Your task to perform on an android device: Go to internet settings Image 0: 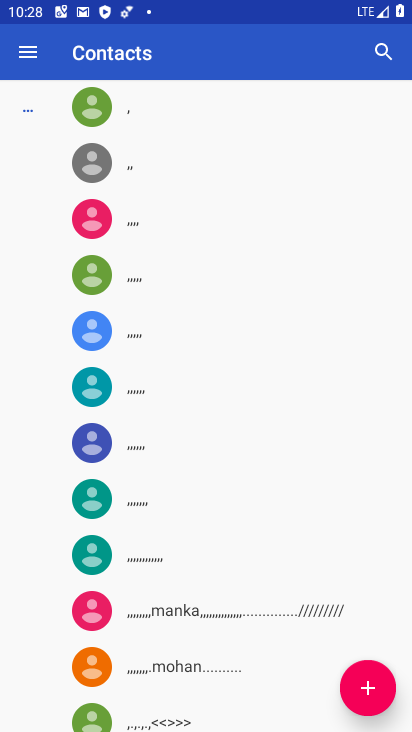
Step 0: press home button
Your task to perform on an android device: Go to internet settings Image 1: 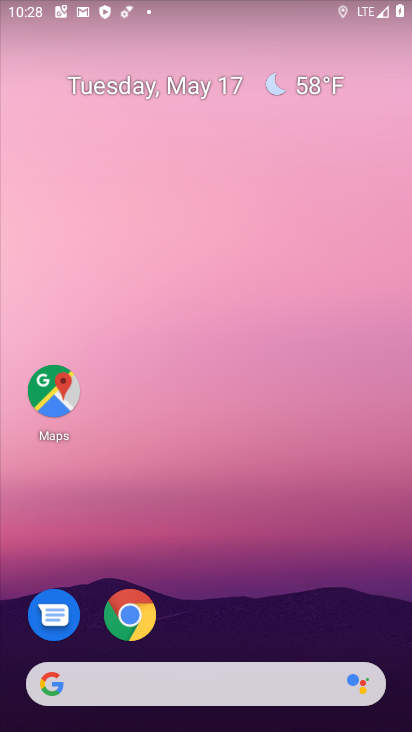
Step 1: drag from (237, 604) to (253, 177)
Your task to perform on an android device: Go to internet settings Image 2: 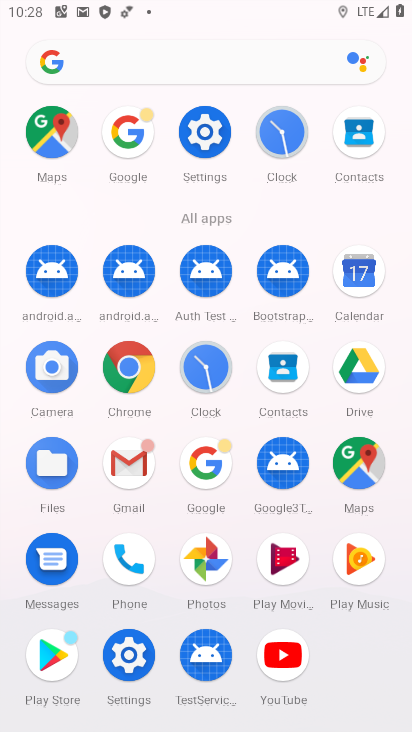
Step 2: click (188, 148)
Your task to perform on an android device: Go to internet settings Image 3: 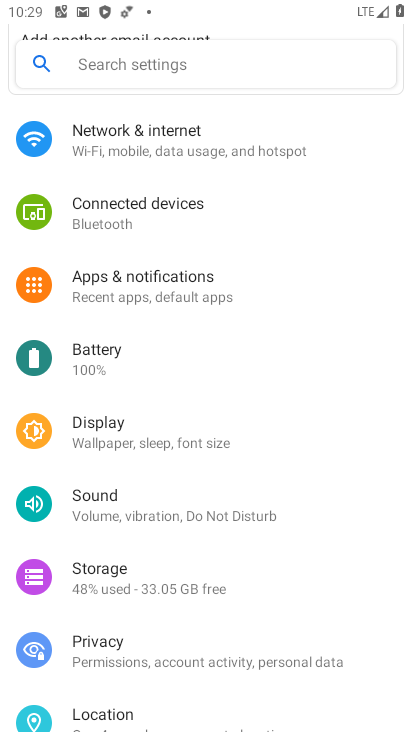
Step 3: click (170, 147)
Your task to perform on an android device: Go to internet settings Image 4: 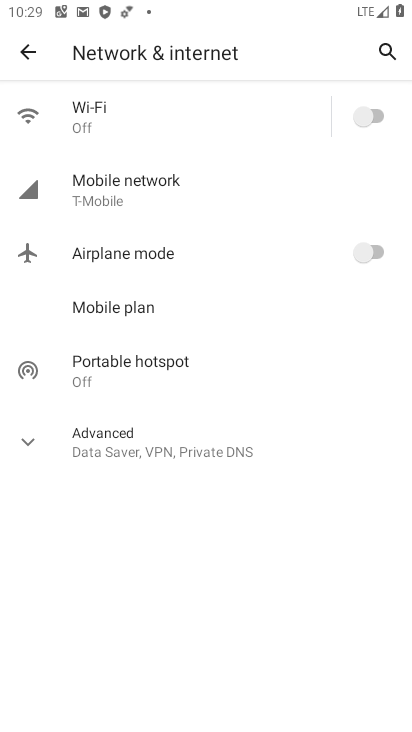
Step 4: click (172, 194)
Your task to perform on an android device: Go to internet settings Image 5: 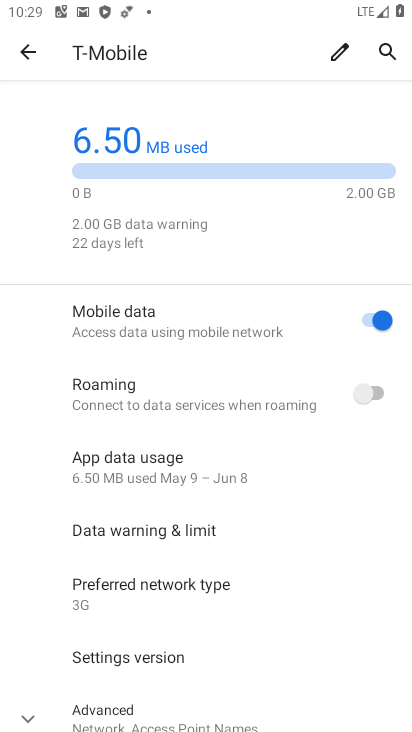
Step 5: task complete